Your task to perform on an android device: Go to notification settings Image 0: 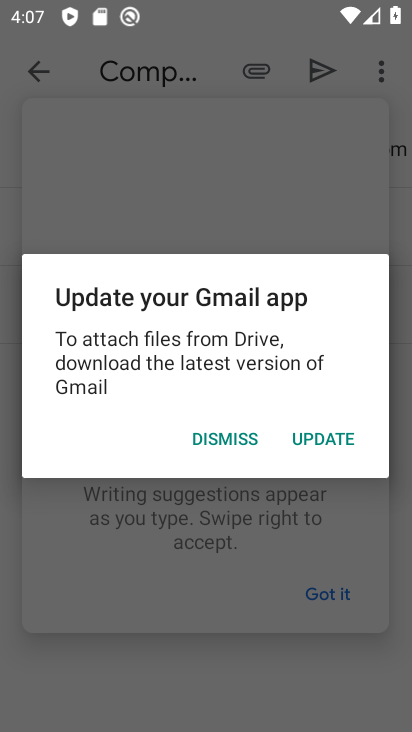
Step 0: press home button
Your task to perform on an android device: Go to notification settings Image 1: 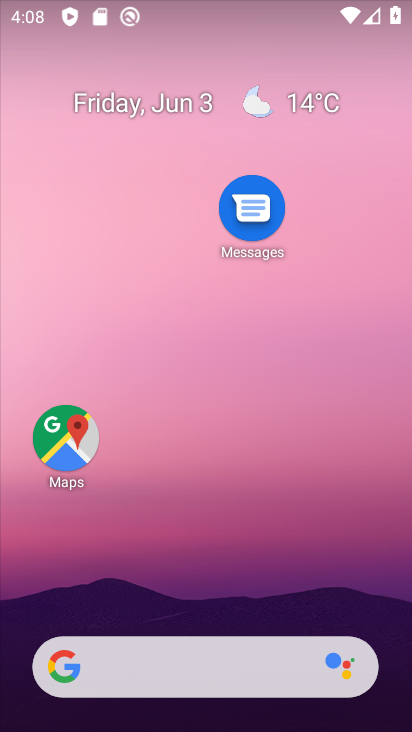
Step 1: drag from (222, 580) to (230, 75)
Your task to perform on an android device: Go to notification settings Image 2: 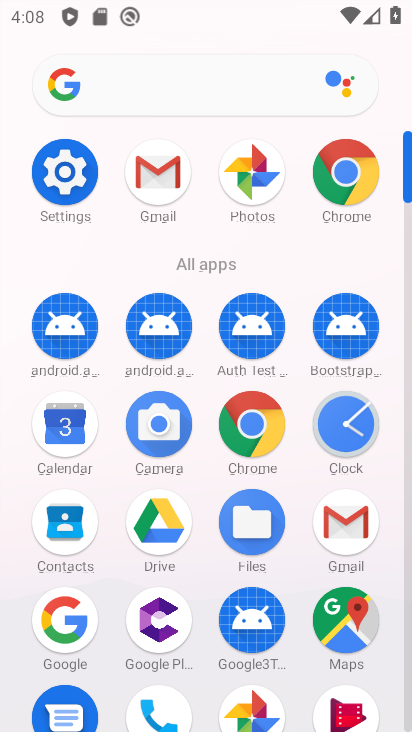
Step 2: click (73, 180)
Your task to perform on an android device: Go to notification settings Image 3: 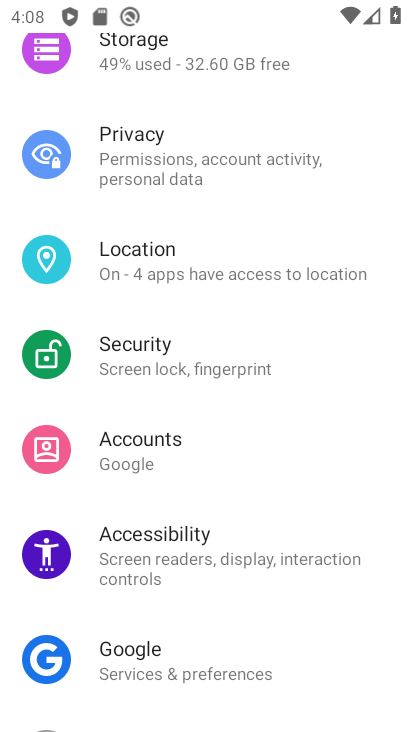
Step 3: drag from (215, 242) to (208, 437)
Your task to perform on an android device: Go to notification settings Image 4: 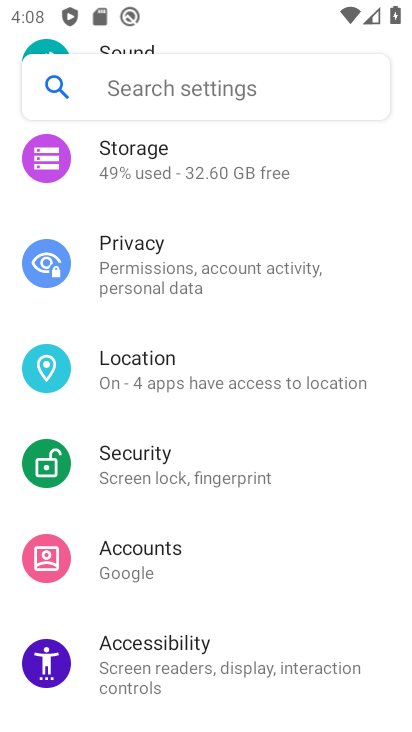
Step 4: click (202, 541)
Your task to perform on an android device: Go to notification settings Image 5: 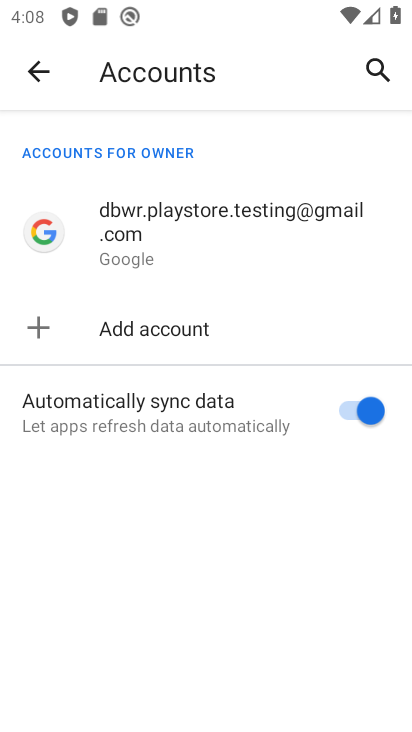
Step 5: drag from (266, 367) to (244, 475)
Your task to perform on an android device: Go to notification settings Image 6: 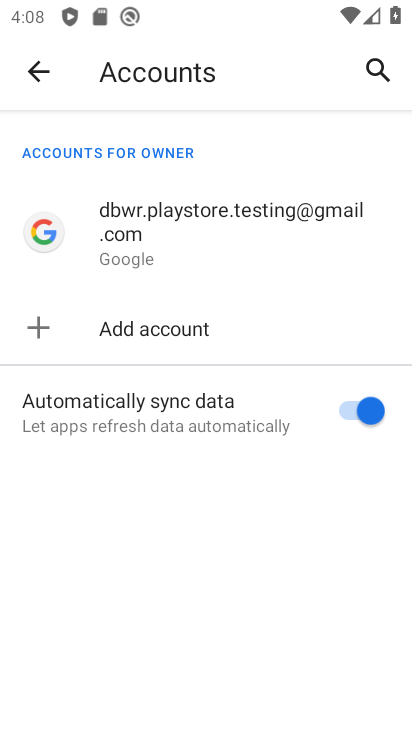
Step 6: click (37, 72)
Your task to perform on an android device: Go to notification settings Image 7: 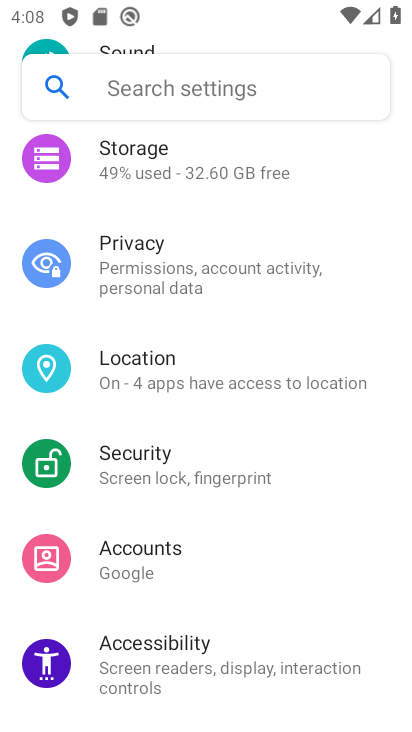
Step 7: drag from (195, 252) to (180, 395)
Your task to perform on an android device: Go to notification settings Image 8: 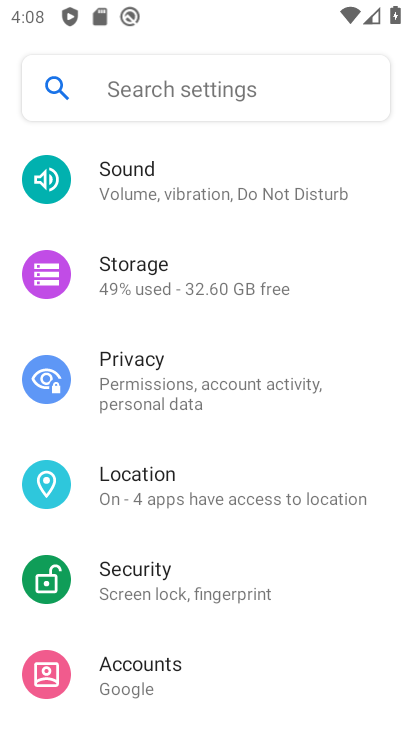
Step 8: drag from (177, 317) to (155, 417)
Your task to perform on an android device: Go to notification settings Image 9: 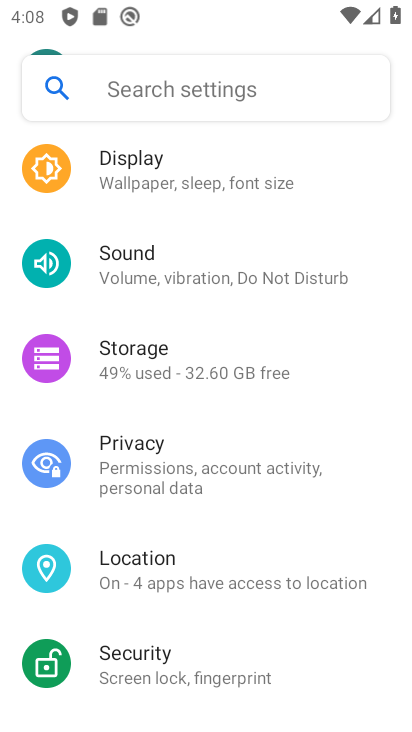
Step 9: drag from (186, 257) to (172, 468)
Your task to perform on an android device: Go to notification settings Image 10: 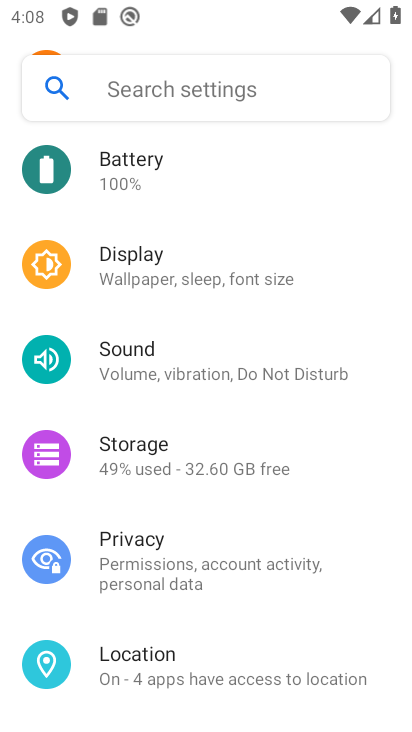
Step 10: drag from (182, 299) to (194, 433)
Your task to perform on an android device: Go to notification settings Image 11: 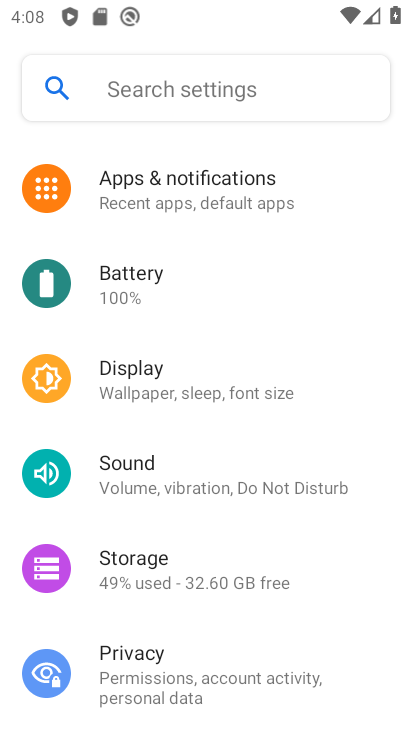
Step 11: click (172, 184)
Your task to perform on an android device: Go to notification settings Image 12: 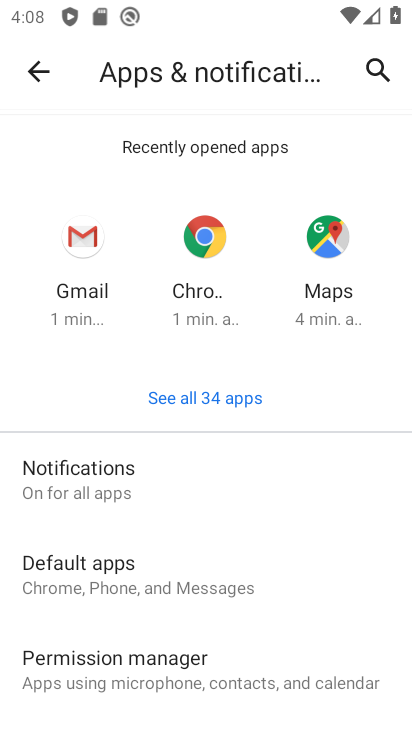
Step 12: click (93, 493)
Your task to perform on an android device: Go to notification settings Image 13: 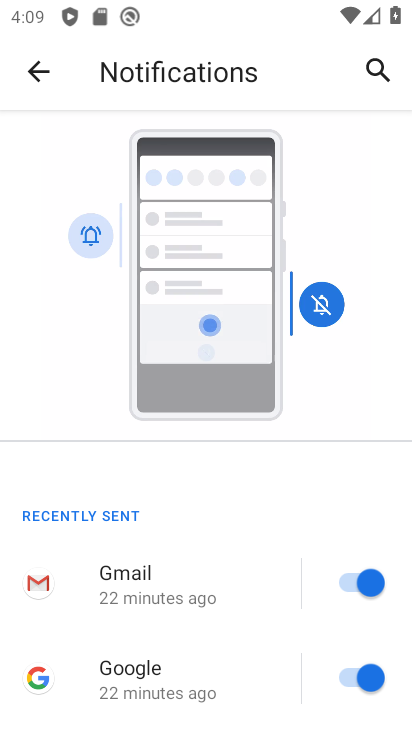
Step 13: task complete